Your task to perform on an android device: Is it going to rain today? Image 0: 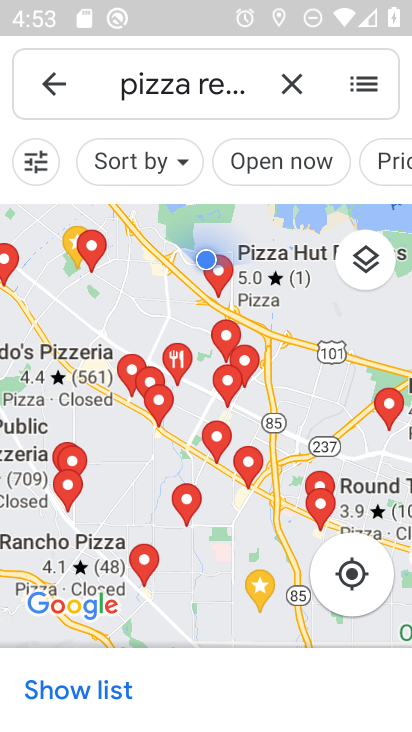
Step 0: press home button
Your task to perform on an android device: Is it going to rain today? Image 1: 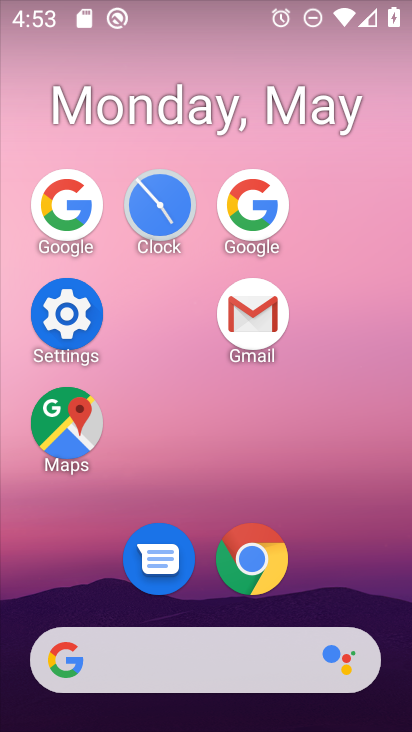
Step 1: click (269, 199)
Your task to perform on an android device: Is it going to rain today? Image 2: 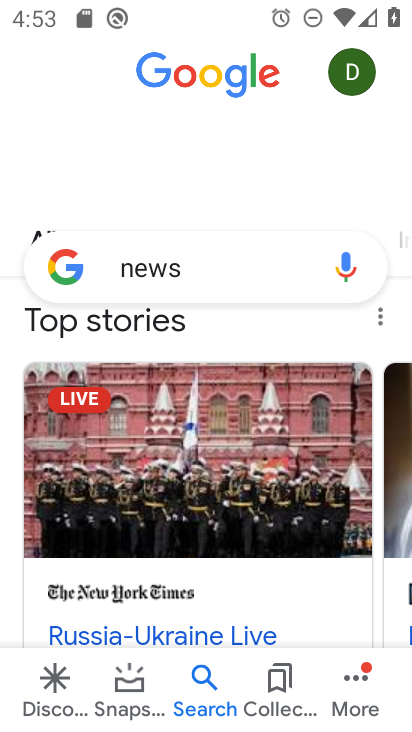
Step 2: click (237, 266)
Your task to perform on an android device: Is it going to rain today? Image 3: 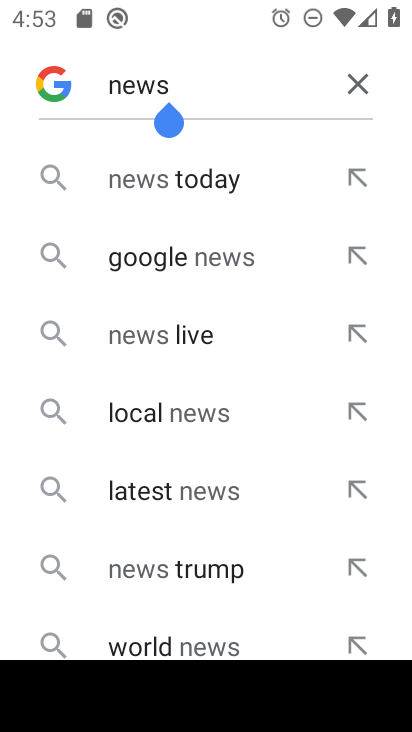
Step 3: click (355, 86)
Your task to perform on an android device: Is it going to rain today? Image 4: 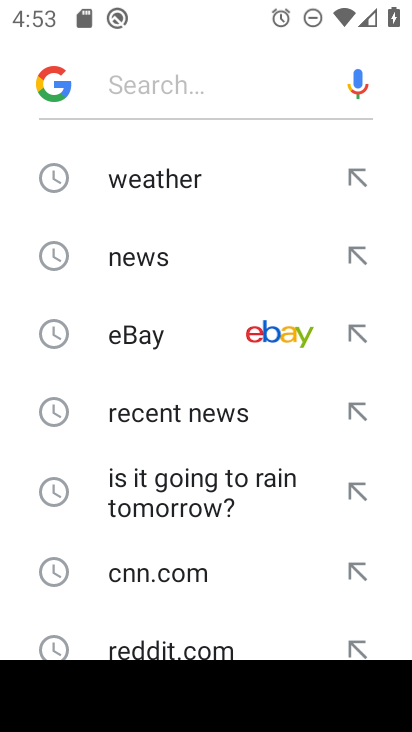
Step 4: click (196, 180)
Your task to perform on an android device: Is it going to rain today? Image 5: 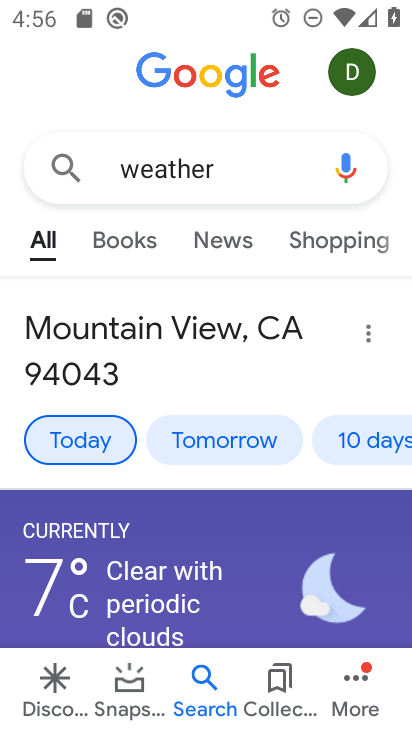
Step 5: task complete